Your task to perform on an android device: open a bookmark in the chrome app Image 0: 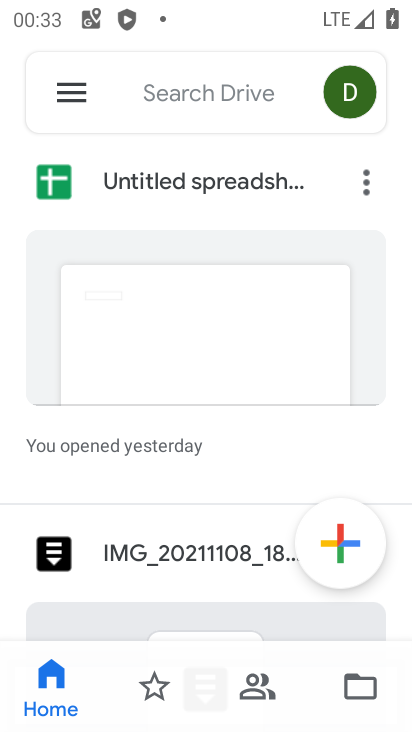
Step 0: press home button
Your task to perform on an android device: open a bookmark in the chrome app Image 1: 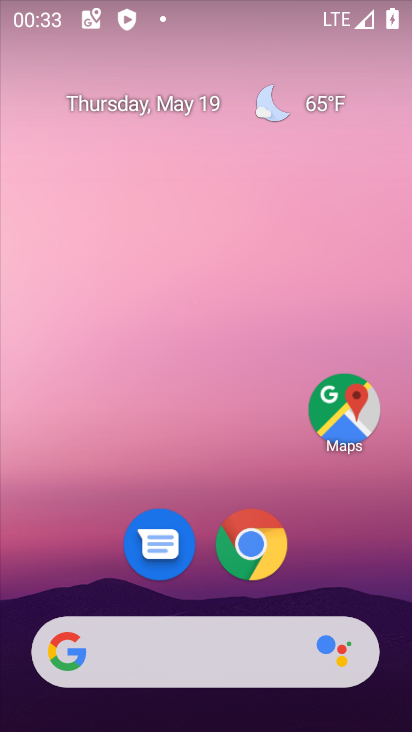
Step 1: drag from (357, 575) to (375, 156)
Your task to perform on an android device: open a bookmark in the chrome app Image 2: 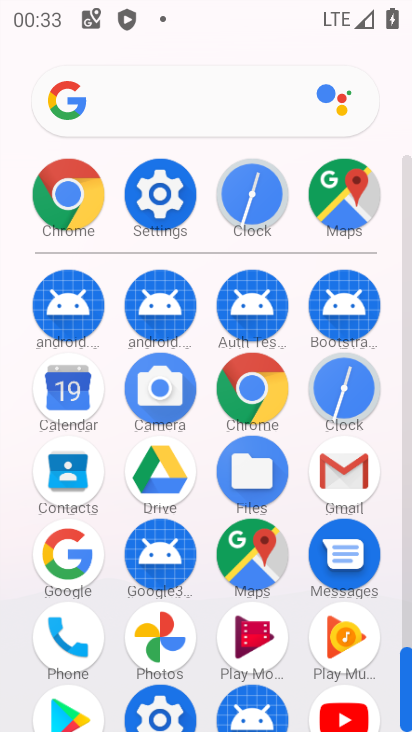
Step 2: click (267, 404)
Your task to perform on an android device: open a bookmark in the chrome app Image 3: 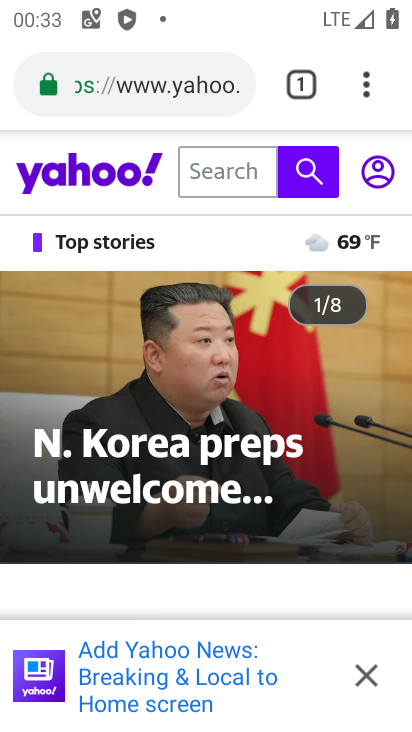
Step 3: click (365, 93)
Your task to perform on an android device: open a bookmark in the chrome app Image 4: 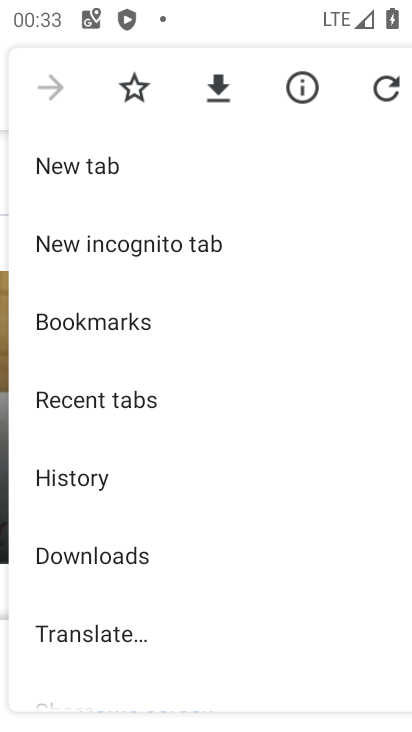
Step 4: drag from (315, 587) to (318, 429)
Your task to perform on an android device: open a bookmark in the chrome app Image 5: 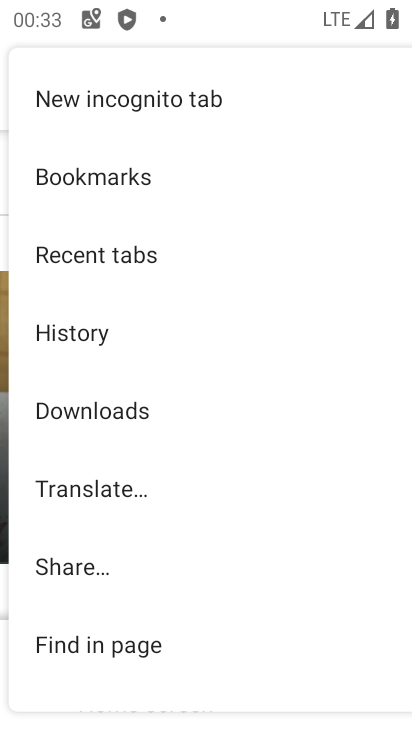
Step 5: drag from (330, 620) to (323, 424)
Your task to perform on an android device: open a bookmark in the chrome app Image 6: 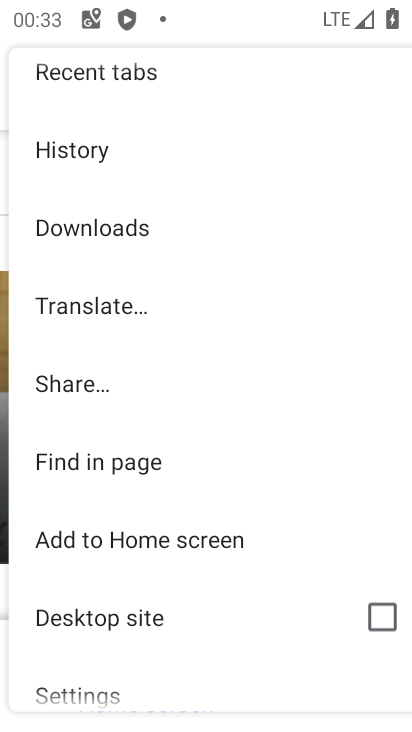
Step 6: drag from (296, 632) to (311, 452)
Your task to perform on an android device: open a bookmark in the chrome app Image 7: 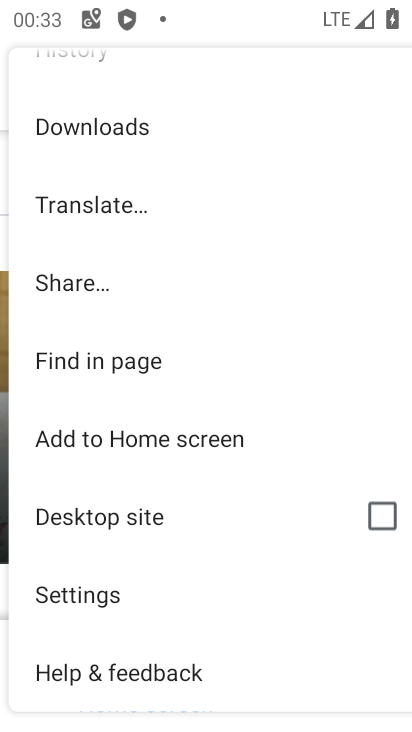
Step 7: drag from (322, 617) to (308, 412)
Your task to perform on an android device: open a bookmark in the chrome app Image 8: 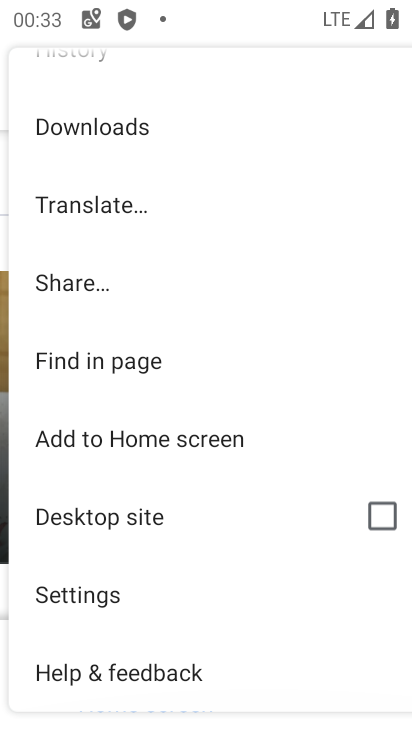
Step 8: drag from (306, 299) to (288, 481)
Your task to perform on an android device: open a bookmark in the chrome app Image 9: 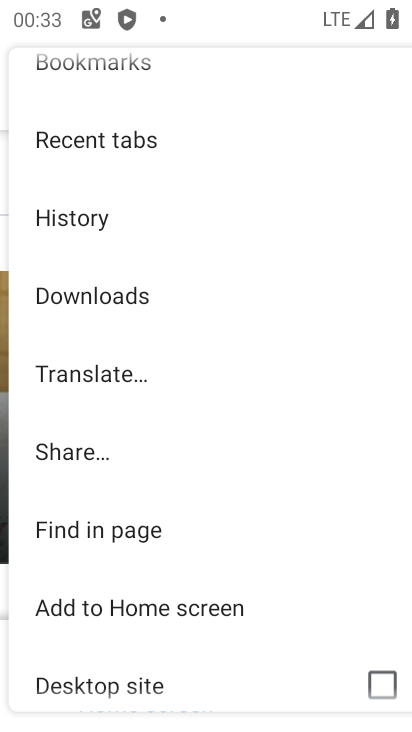
Step 9: drag from (288, 324) to (288, 479)
Your task to perform on an android device: open a bookmark in the chrome app Image 10: 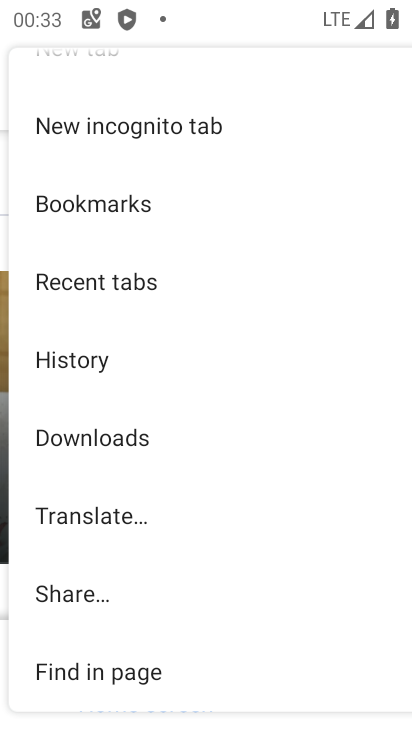
Step 10: drag from (288, 305) to (266, 460)
Your task to perform on an android device: open a bookmark in the chrome app Image 11: 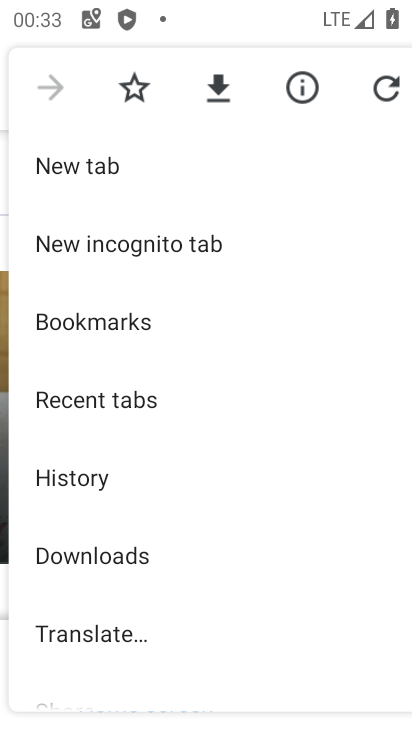
Step 11: click (149, 330)
Your task to perform on an android device: open a bookmark in the chrome app Image 12: 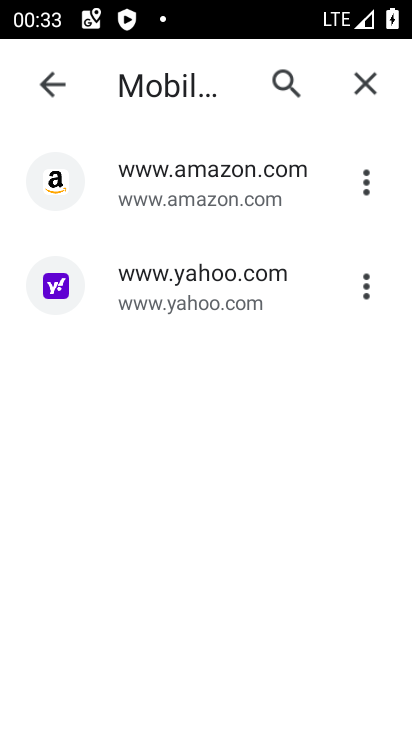
Step 12: click (242, 273)
Your task to perform on an android device: open a bookmark in the chrome app Image 13: 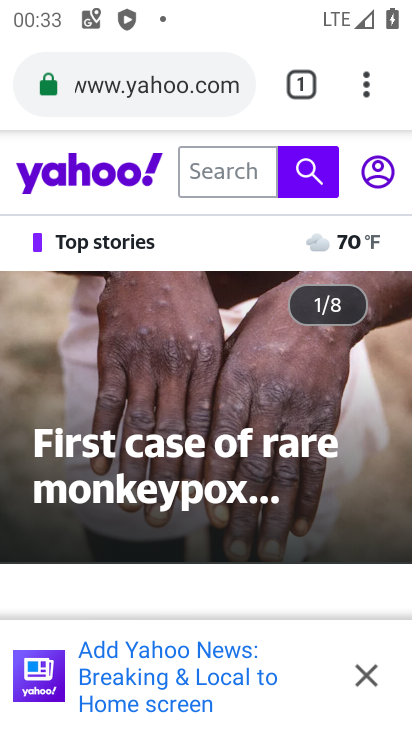
Step 13: task complete